Your task to perform on an android device: star an email in the gmail app Image 0: 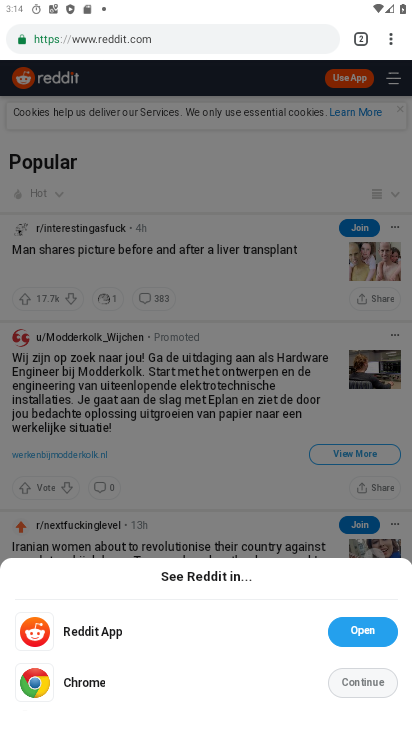
Step 0: press home button
Your task to perform on an android device: star an email in the gmail app Image 1: 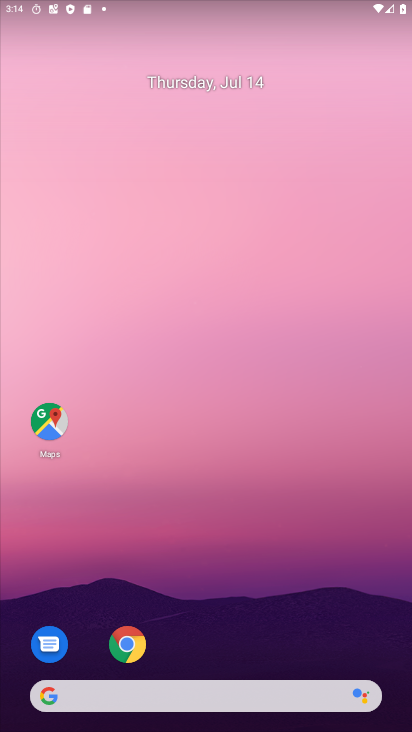
Step 1: drag from (28, 705) to (379, 37)
Your task to perform on an android device: star an email in the gmail app Image 2: 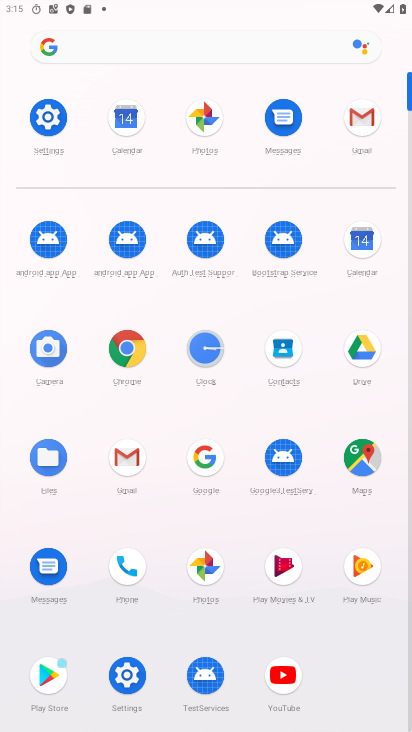
Step 2: click (133, 457)
Your task to perform on an android device: star an email in the gmail app Image 3: 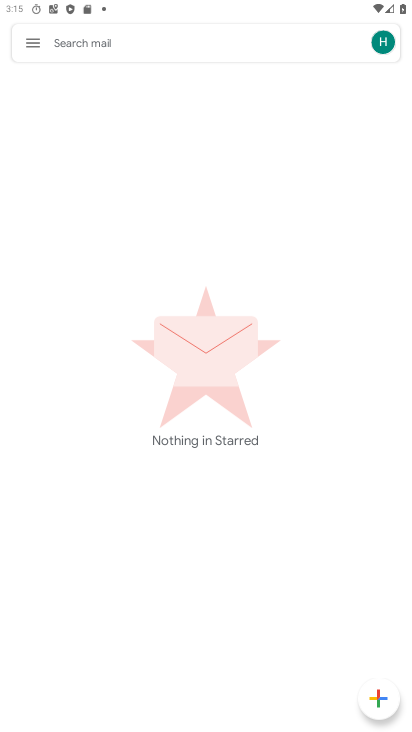
Step 3: click (24, 44)
Your task to perform on an android device: star an email in the gmail app Image 4: 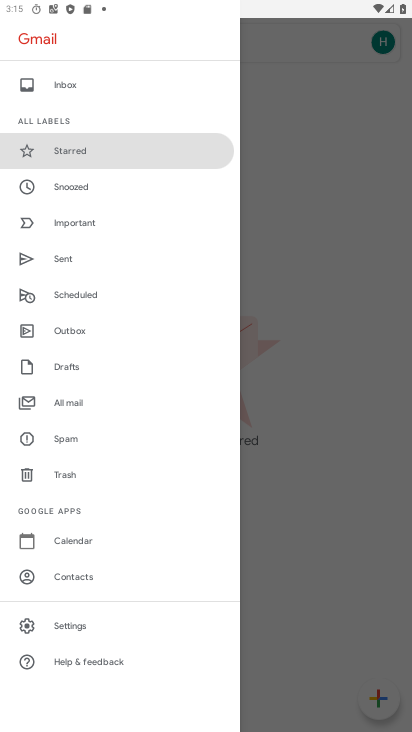
Step 4: drag from (76, 475) to (81, 604)
Your task to perform on an android device: star an email in the gmail app Image 5: 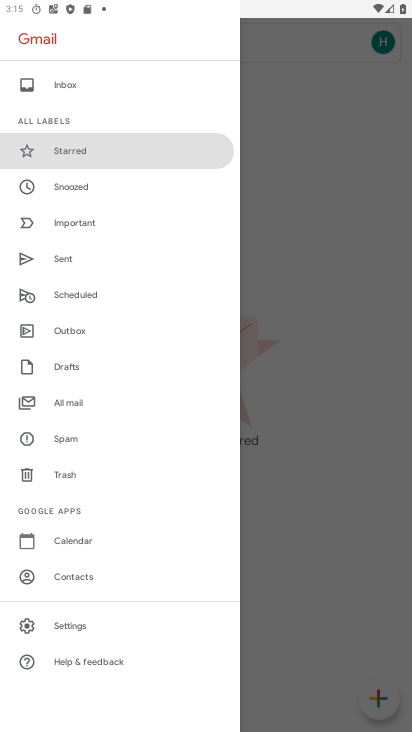
Step 5: click (83, 144)
Your task to perform on an android device: star an email in the gmail app Image 6: 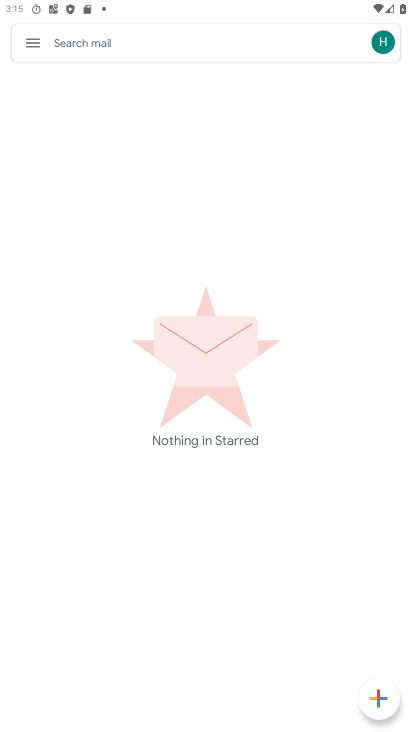
Step 6: task complete